Your task to perform on an android device: turn notification dots off Image 0: 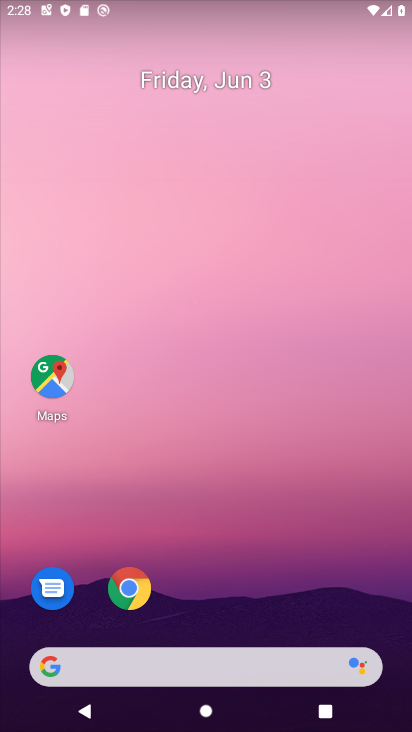
Step 0: drag from (241, 588) to (209, 164)
Your task to perform on an android device: turn notification dots off Image 1: 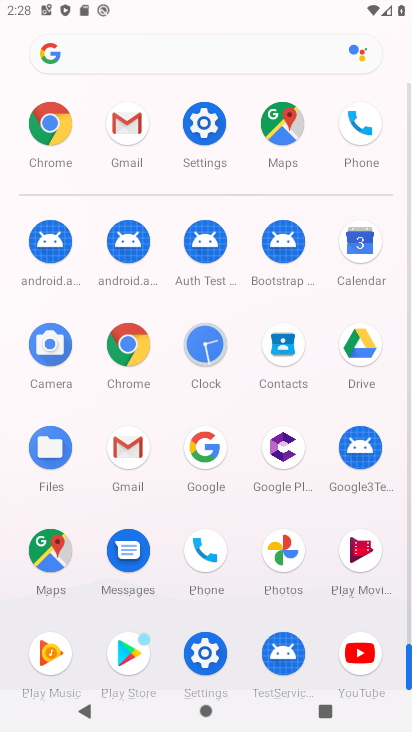
Step 1: click (215, 655)
Your task to perform on an android device: turn notification dots off Image 2: 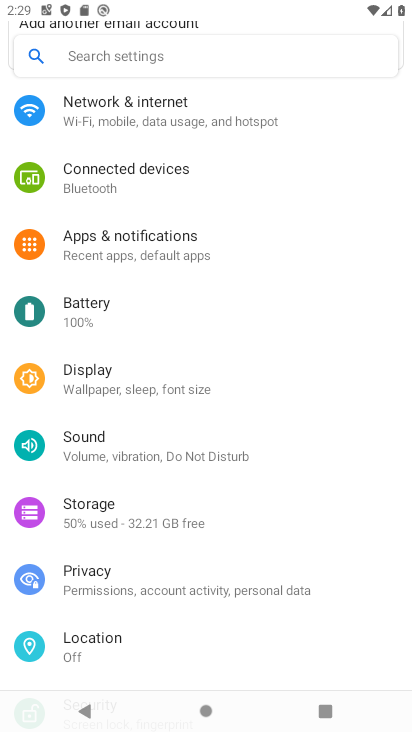
Step 2: click (200, 253)
Your task to perform on an android device: turn notification dots off Image 3: 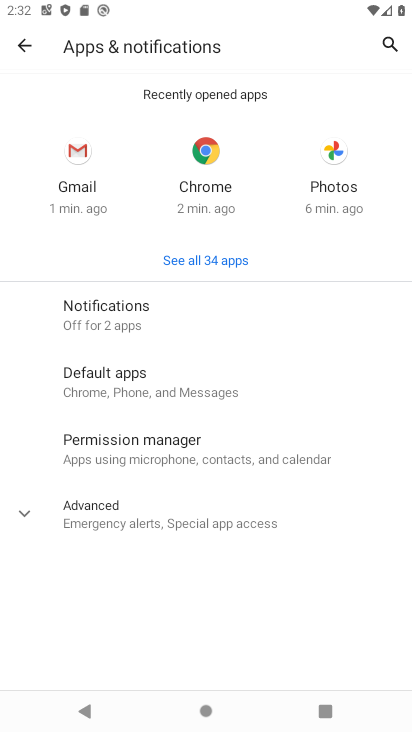
Step 3: click (158, 308)
Your task to perform on an android device: turn notification dots off Image 4: 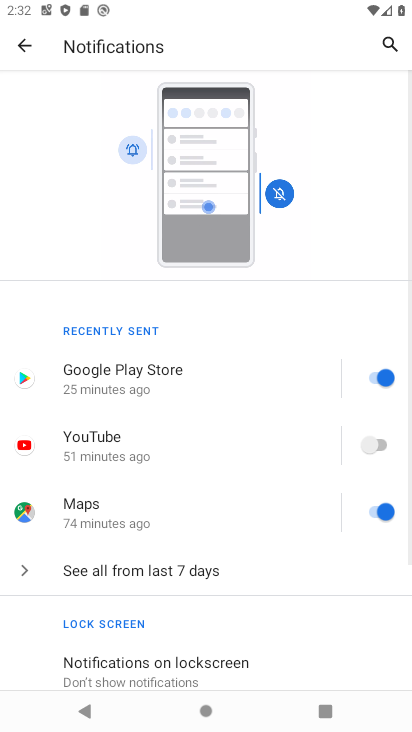
Step 4: drag from (165, 491) to (181, 45)
Your task to perform on an android device: turn notification dots off Image 5: 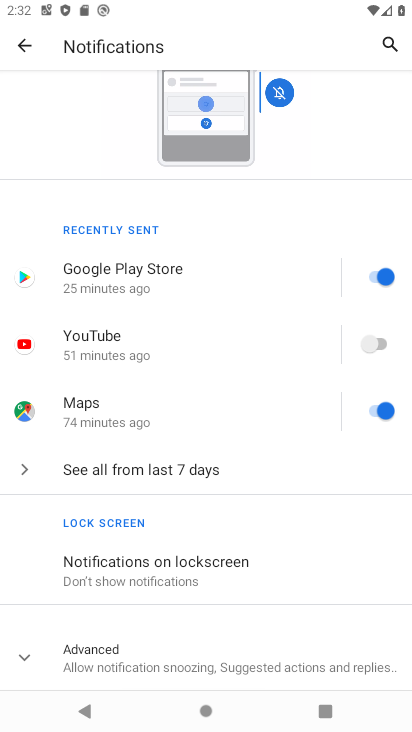
Step 5: click (130, 648)
Your task to perform on an android device: turn notification dots off Image 6: 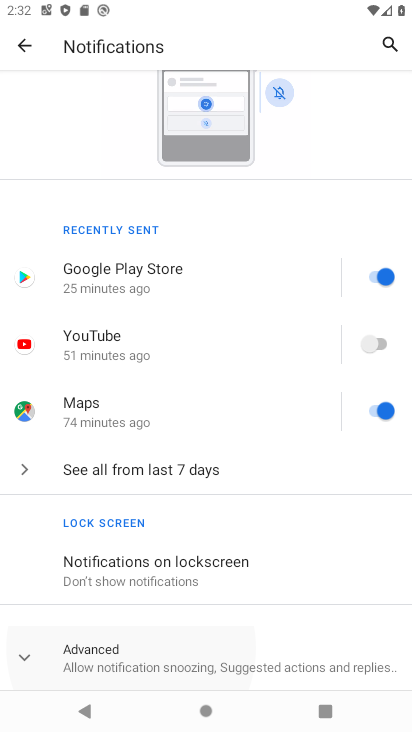
Step 6: drag from (126, 583) to (247, 89)
Your task to perform on an android device: turn notification dots off Image 7: 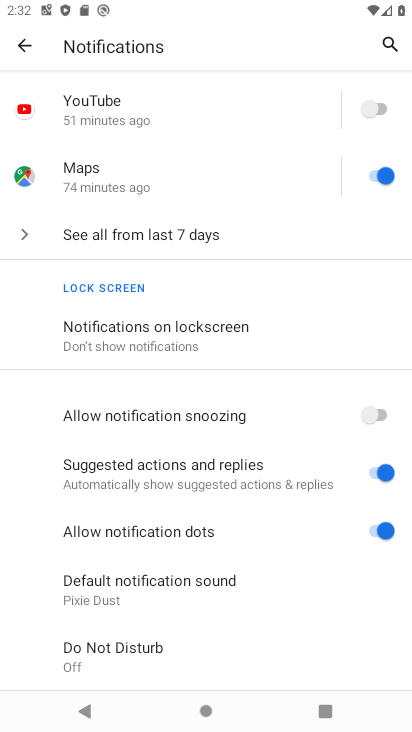
Step 7: click (199, 650)
Your task to perform on an android device: turn notification dots off Image 8: 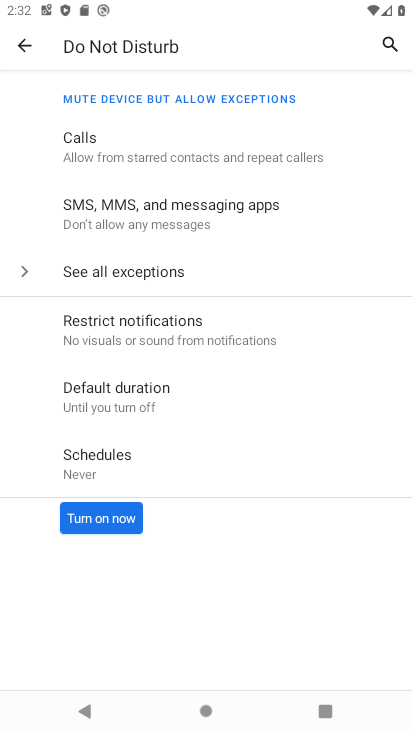
Step 8: press back button
Your task to perform on an android device: turn notification dots off Image 9: 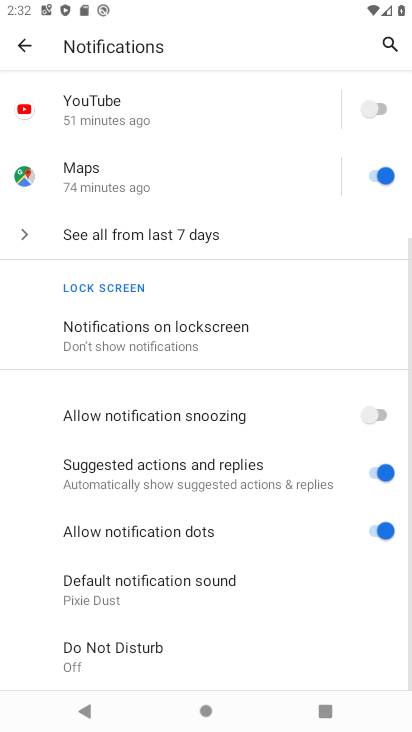
Step 9: click (385, 539)
Your task to perform on an android device: turn notification dots off Image 10: 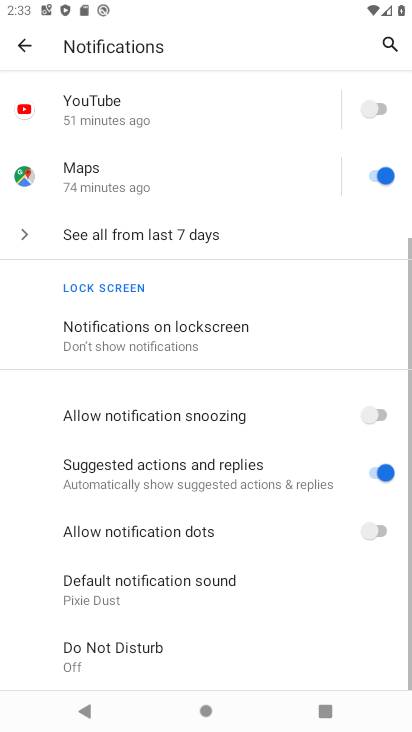
Step 10: task complete